Your task to perform on an android device: turn off sleep mode Image 0: 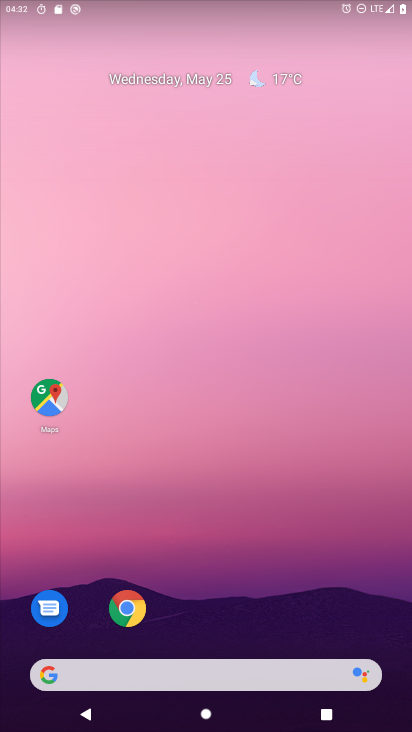
Step 0: drag from (214, 600) to (284, 173)
Your task to perform on an android device: turn off sleep mode Image 1: 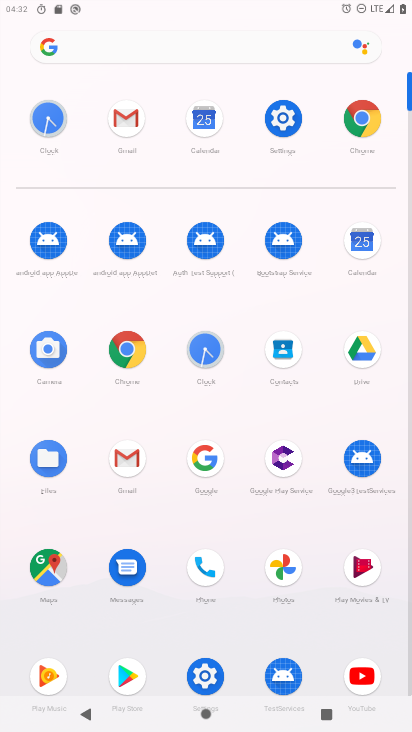
Step 1: click (295, 108)
Your task to perform on an android device: turn off sleep mode Image 2: 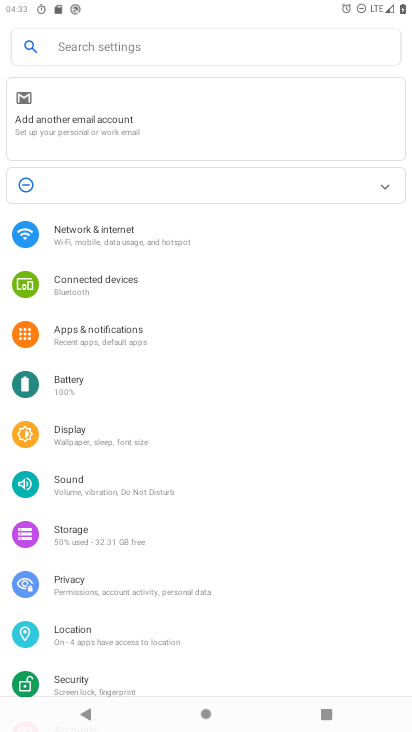
Step 2: click (108, 446)
Your task to perform on an android device: turn off sleep mode Image 3: 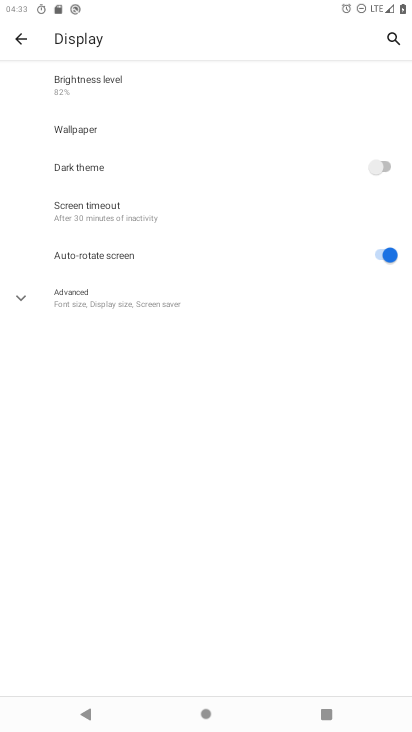
Step 3: click (110, 212)
Your task to perform on an android device: turn off sleep mode Image 4: 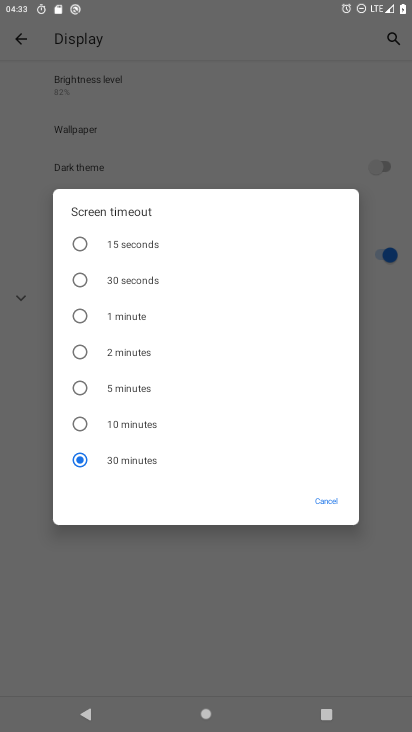
Step 4: task complete